Your task to perform on an android device: turn on data saver in the chrome app Image 0: 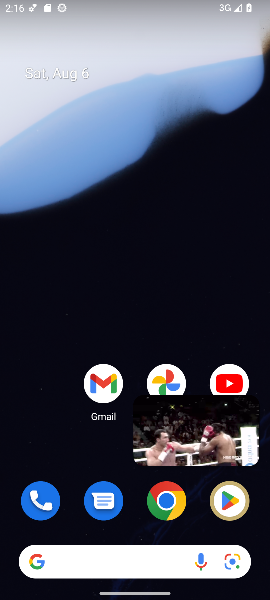
Step 0: press home button
Your task to perform on an android device: turn on data saver in the chrome app Image 1: 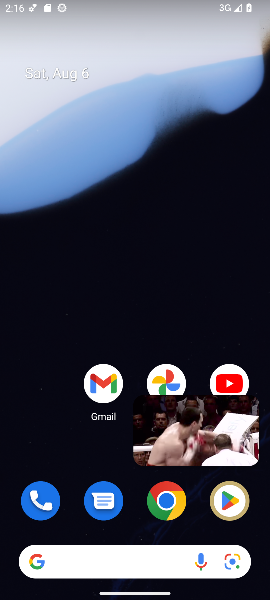
Step 1: click (246, 408)
Your task to perform on an android device: turn on data saver in the chrome app Image 2: 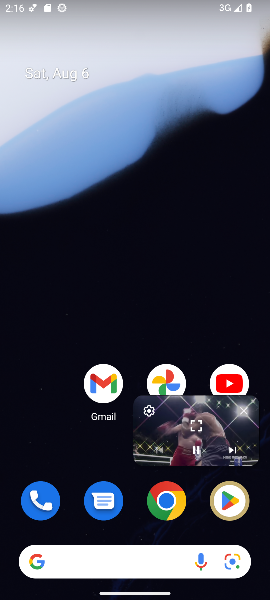
Step 2: click (245, 411)
Your task to perform on an android device: turn on data saver in the chrome app Image 3: 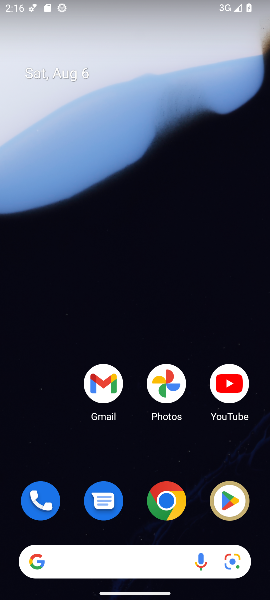
Step 3: click (170, 494)
Your task to perform on an android device: turn on data saver in the chrome app Image 4: 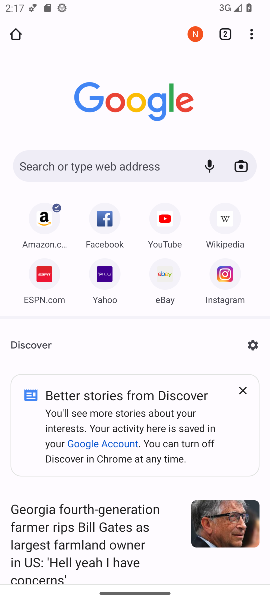
Step 4: task complete